Your task to perform on an android device: Toggle the flashlight Image 0: 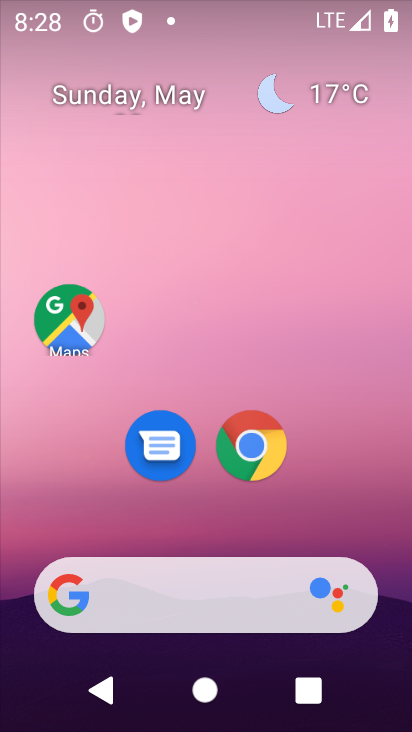
Step 0: drag from (196, 549) to (281, 31)
Your task to perform on an android device: Toggle the flashlight Image 1: 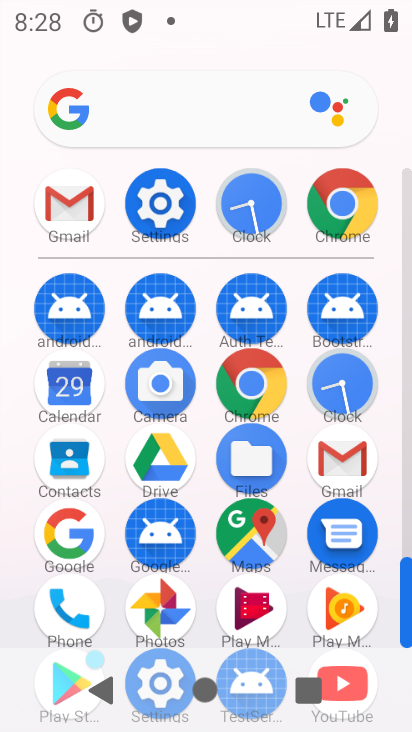
Step 1: click (163, 196)
Your task to perform on an android device: Toggle the flashlight Image 2: 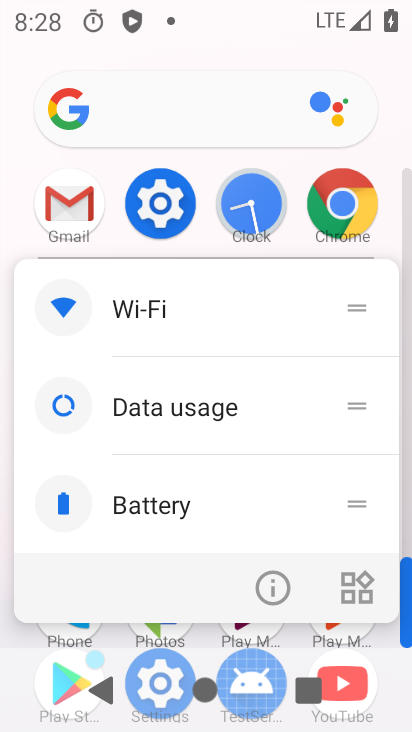
Step 2: click (275, 573)
Your task to perform on an android device: Toggle the flashlight Image 3: 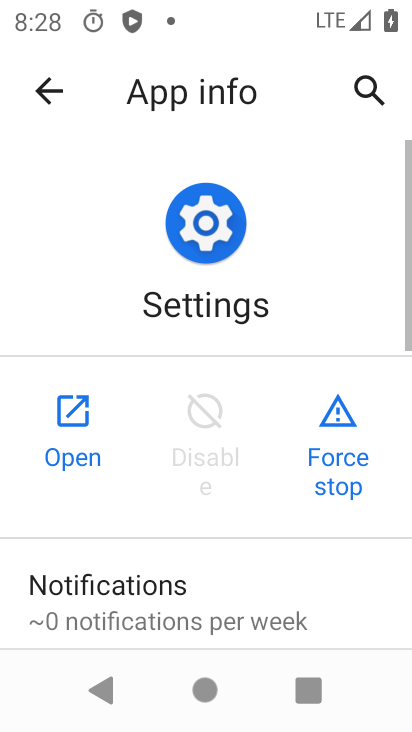
Step 3: click (56, 428)
Your task to perform on an android device: Toggle the flashlight Image 4: 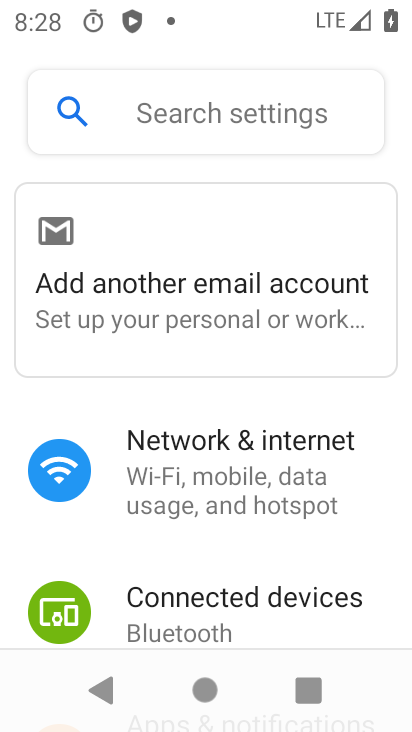
Step 4: click (181, 109)
Your task to perform on an android device: Toggle the flashlight Image 5: 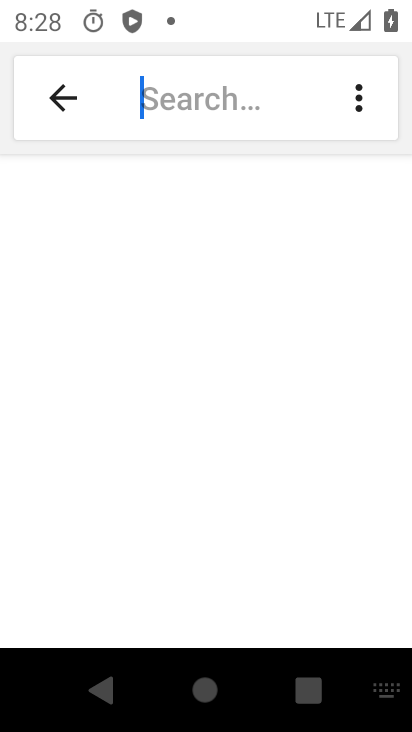
Step 5: type "flashlight"
Your task to perform on an android device: Toggle the flashlight Image 6: 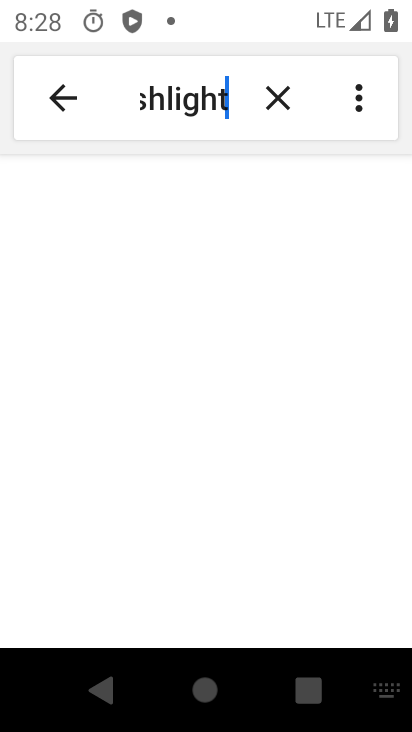
Step 6: type ""
Your task to perform on an android device: Toggle the flashlight Image 7: 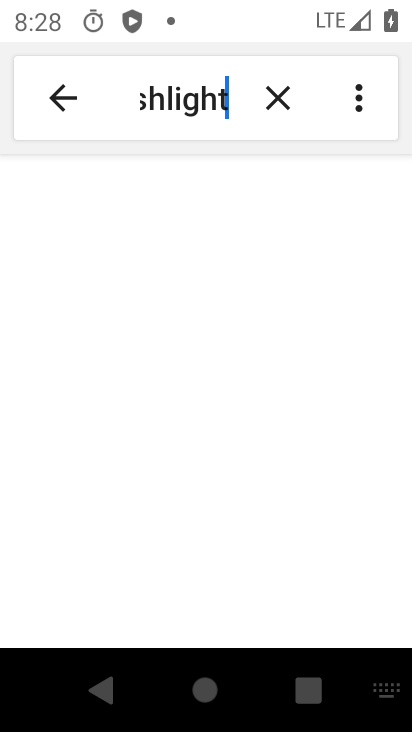
Step 7: task complete